Your task to perform on an android device: search for starred emails in the gmail app Image 0: 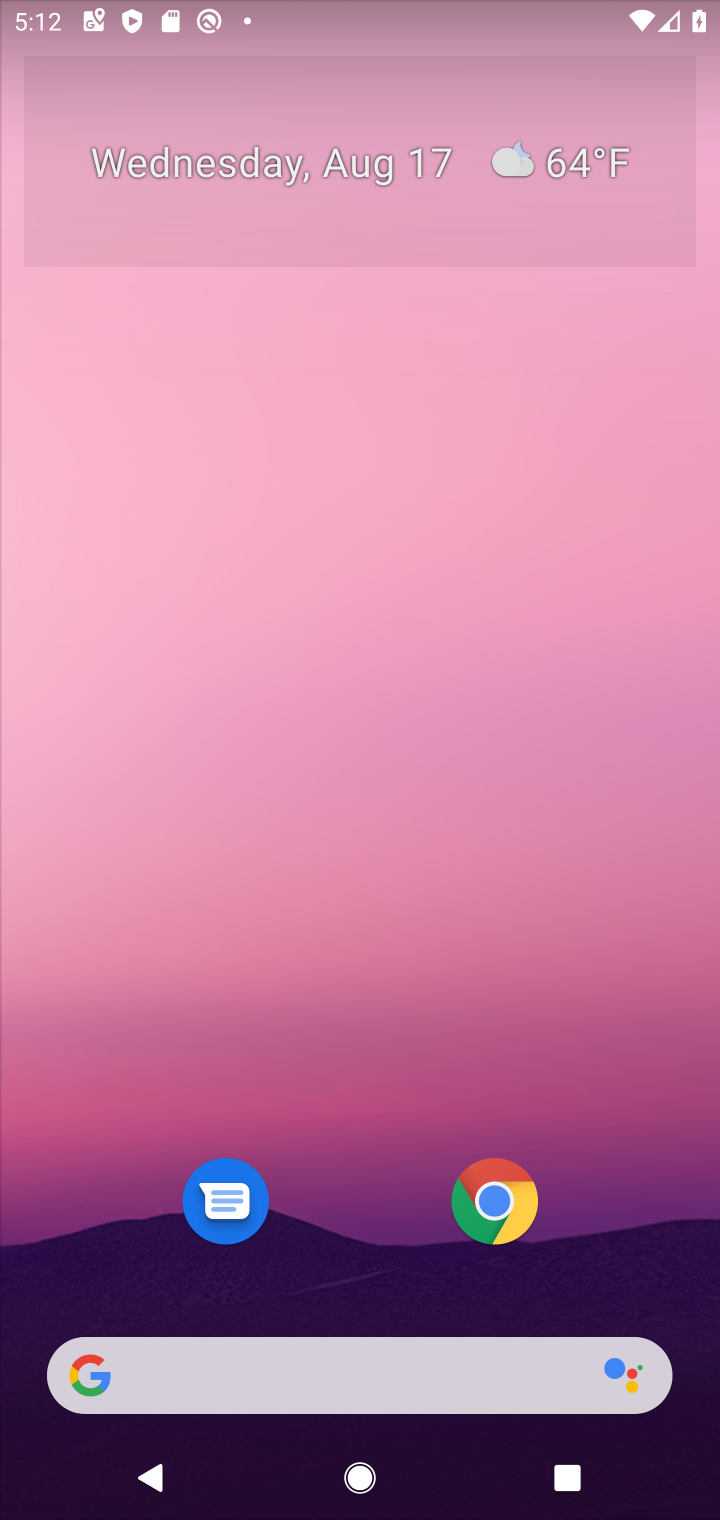
Step 0: drag from (340, 1310) to (459, 6)
Your task to perform on an android device: search for starred emails in the gmail app Image 1: 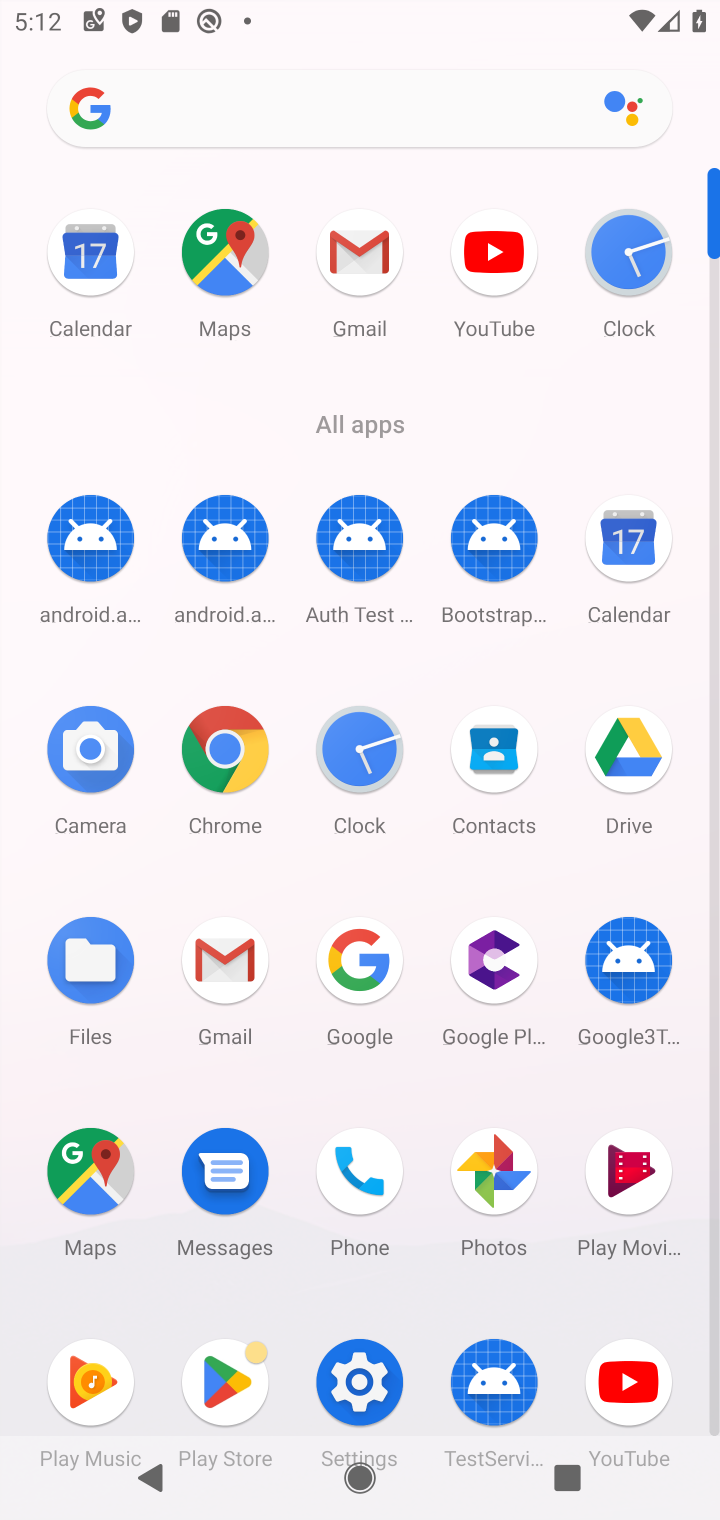
Step 1: click (375, 279)
Your task to perform on an android device: search for starred emails in the gmail app Image 2: 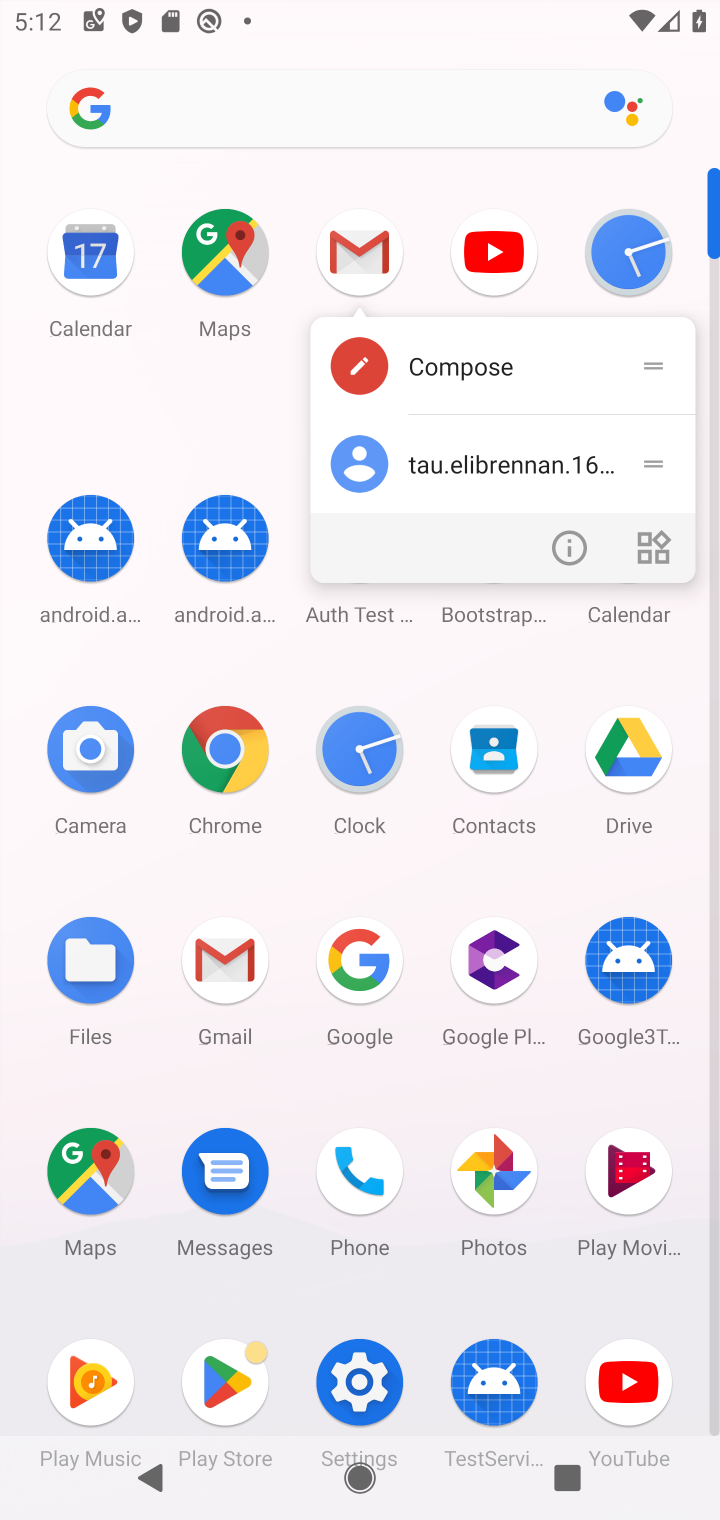
Step 2: click (368, 258)
Your task to perform on an android device: search for starred emails in the gmail app Image 3: 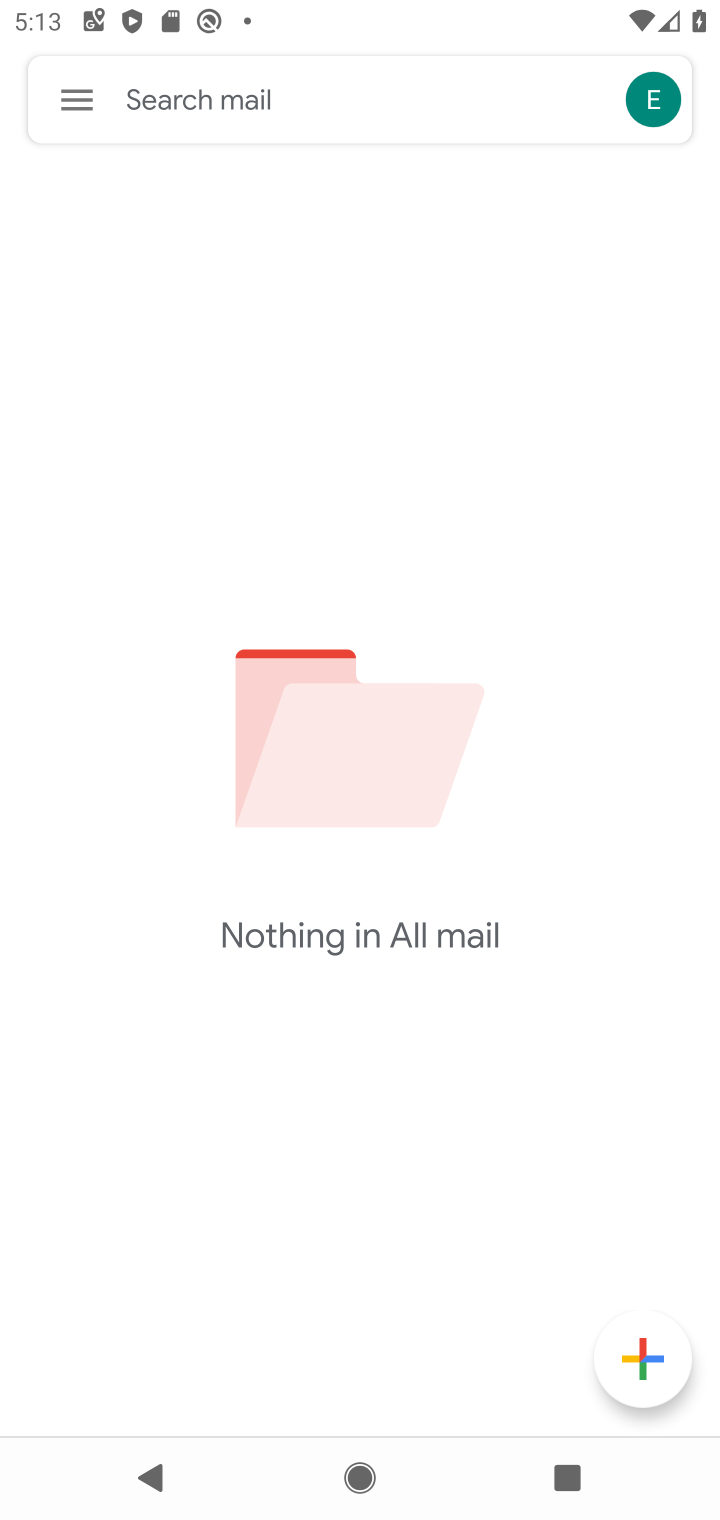
Step 3: click (82, 118)
Your task to perform on an android device: search for starred emails in the gmail app Image 4: 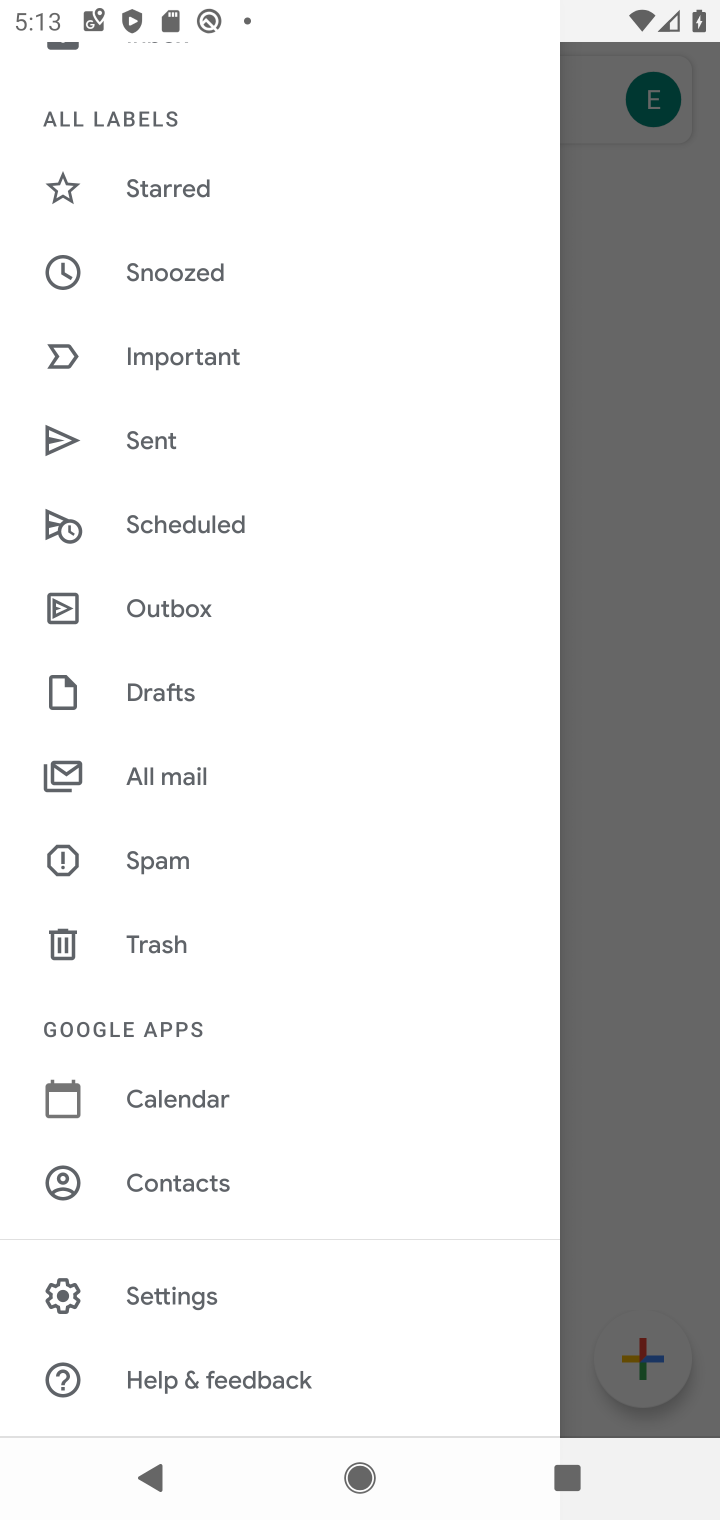
Step 4: click (150, 185)
Your task to perform on an android device: search for starred emails in the gmail app Image 5: 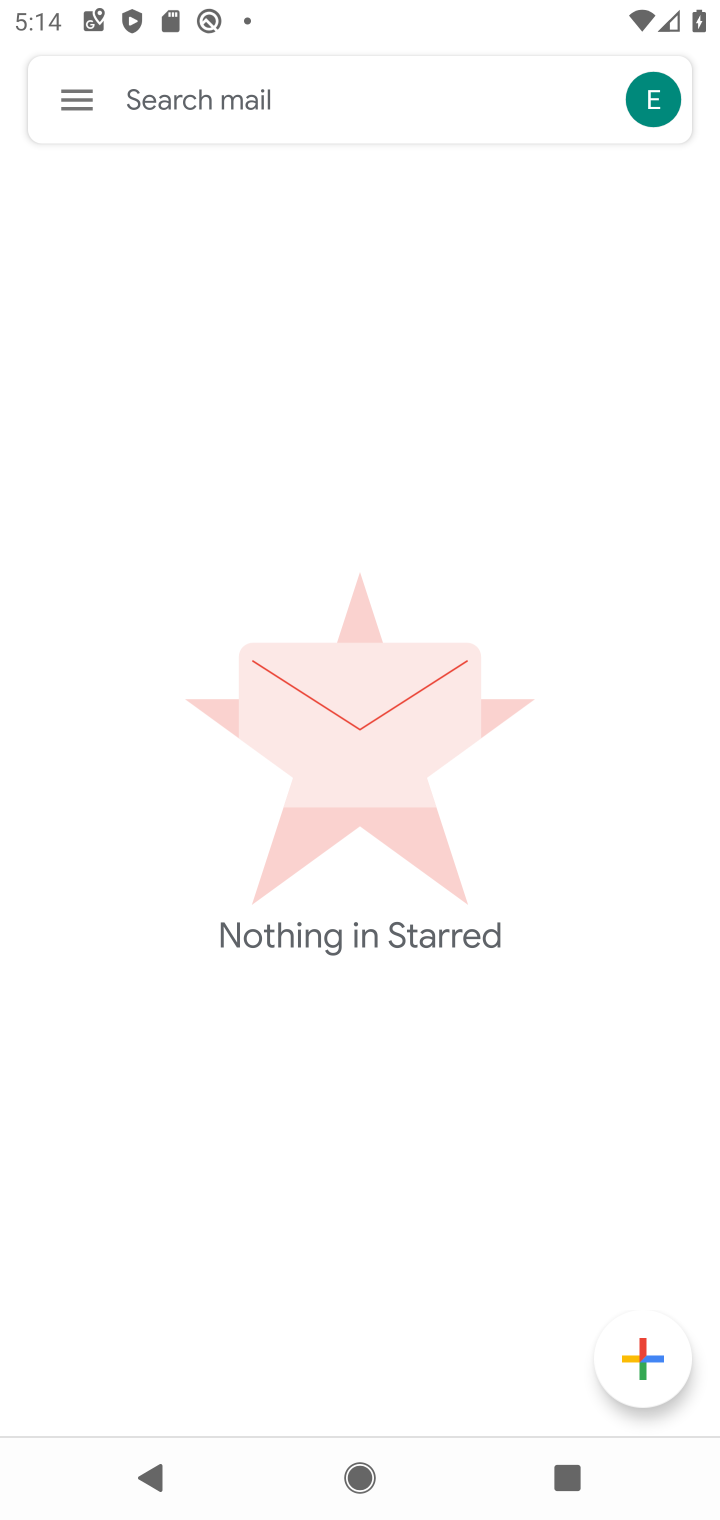
Step 5: task complete